Your task to perform on an android device: Go to CNN.com Image 0: 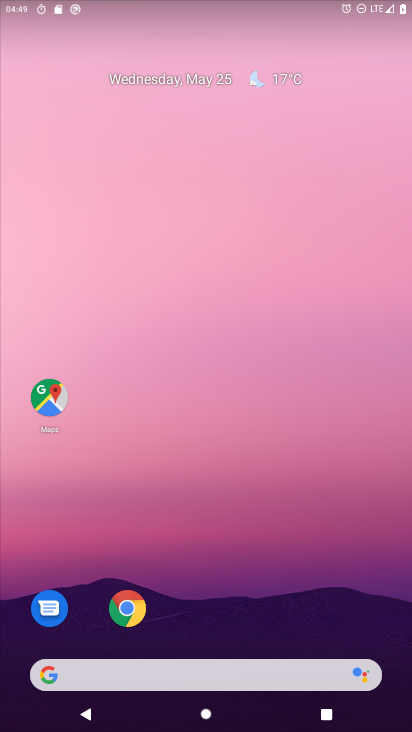
Step 0: drag from (277, 564) to (252, 143)
Your task to perform on an android device: Go to CNN.com Image 1: 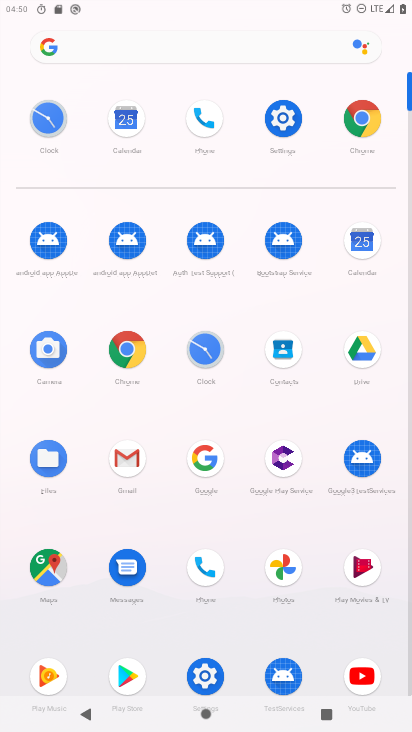
Step 1: click (362, 123)
Your task to perform on an android device: Go to CNN.com Image 2: 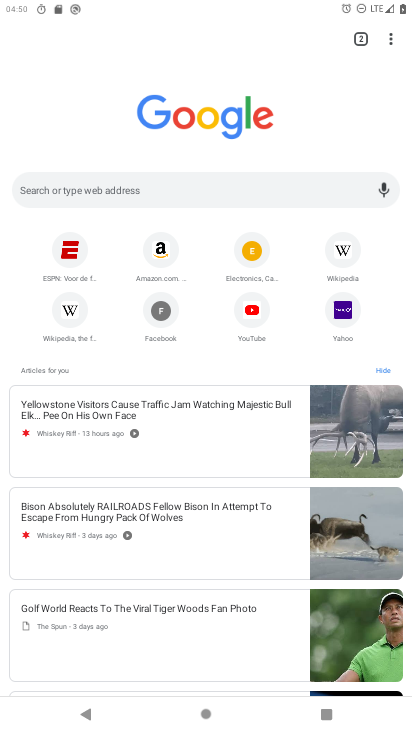
Step 2: click (194, 180)
Your task to perform on an android device: Go to CNN.com Image 3: 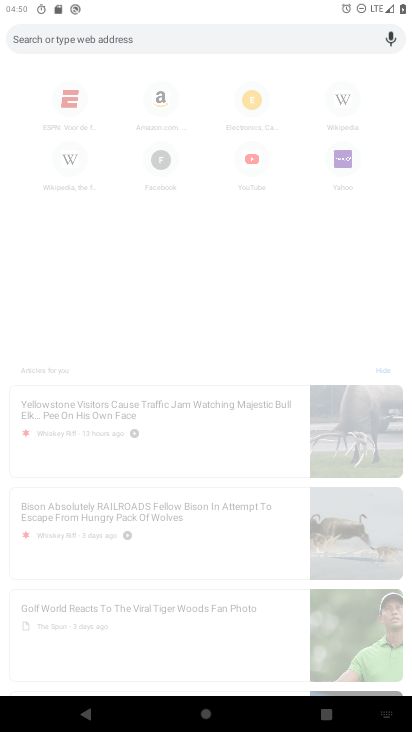
Step 3: type "cnn.com"
Your task to perform on an android device: Go to CNN.com Image 4: 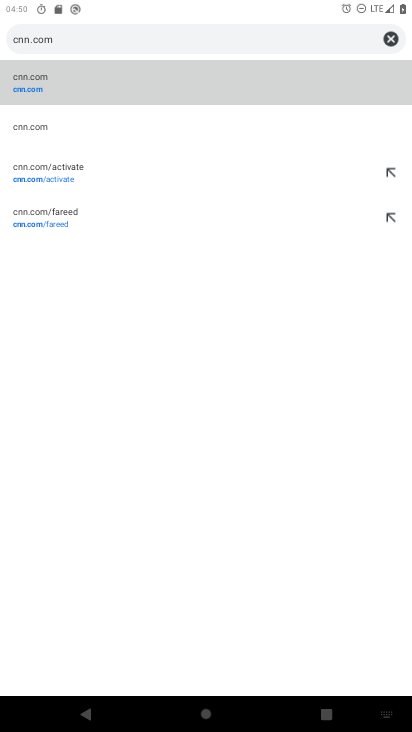
Step 4: click (30, 93)
Your task to perform on an android device: Go to CNN.com Image 5: 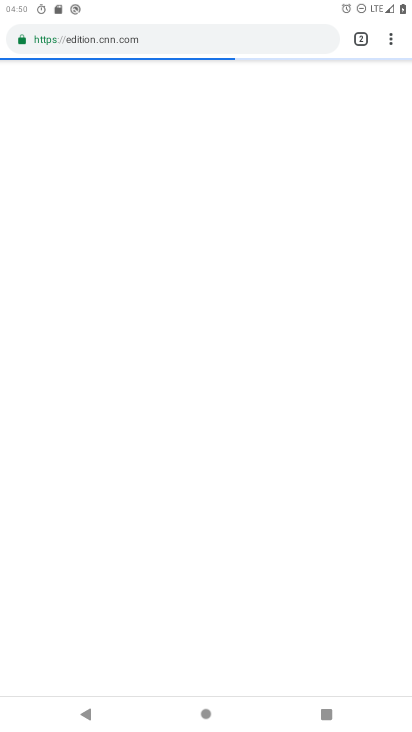
Step 5: task complete